Your task to perform on an android device: Search for the new Apple Watch on Best Buy Image 0: 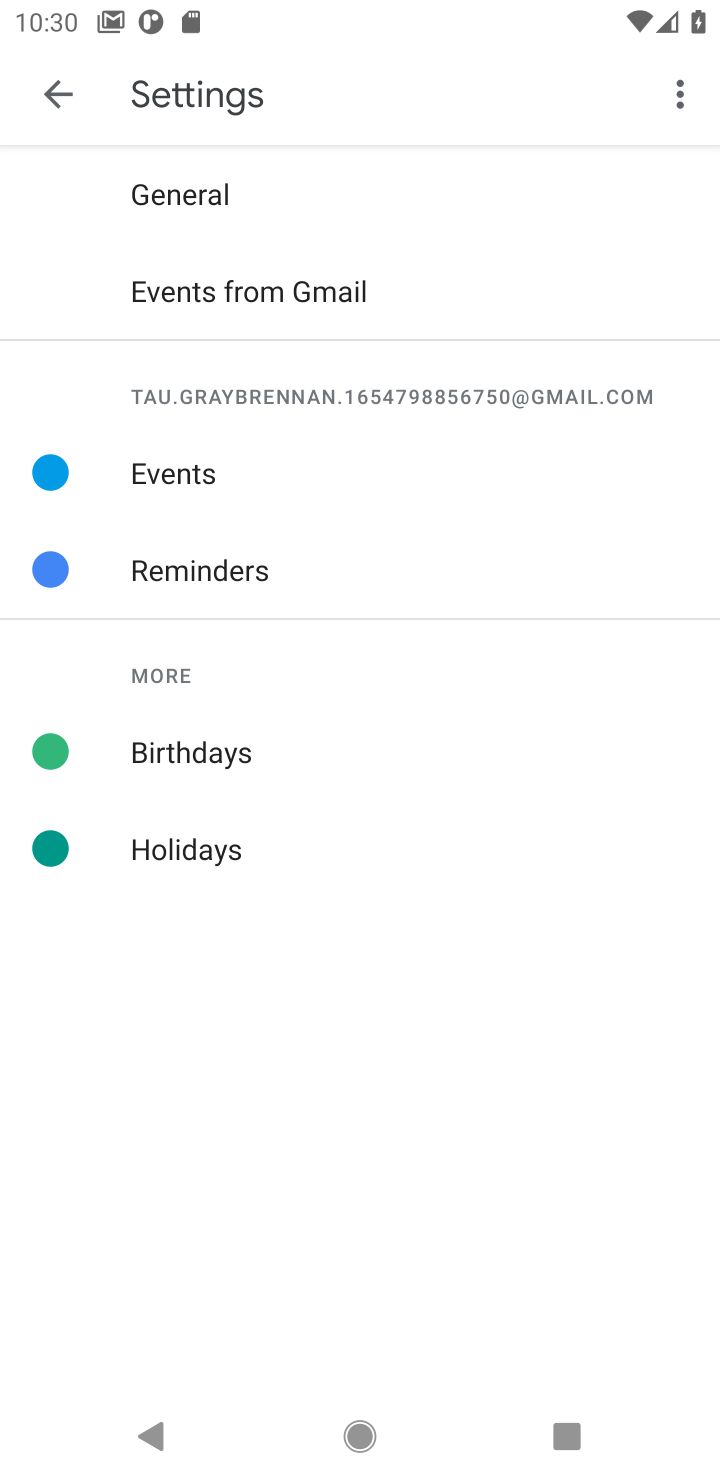
Step 0: press home button
Your task to perform on an android device: Search for the new Apple Watch on Best Buy Image 1: 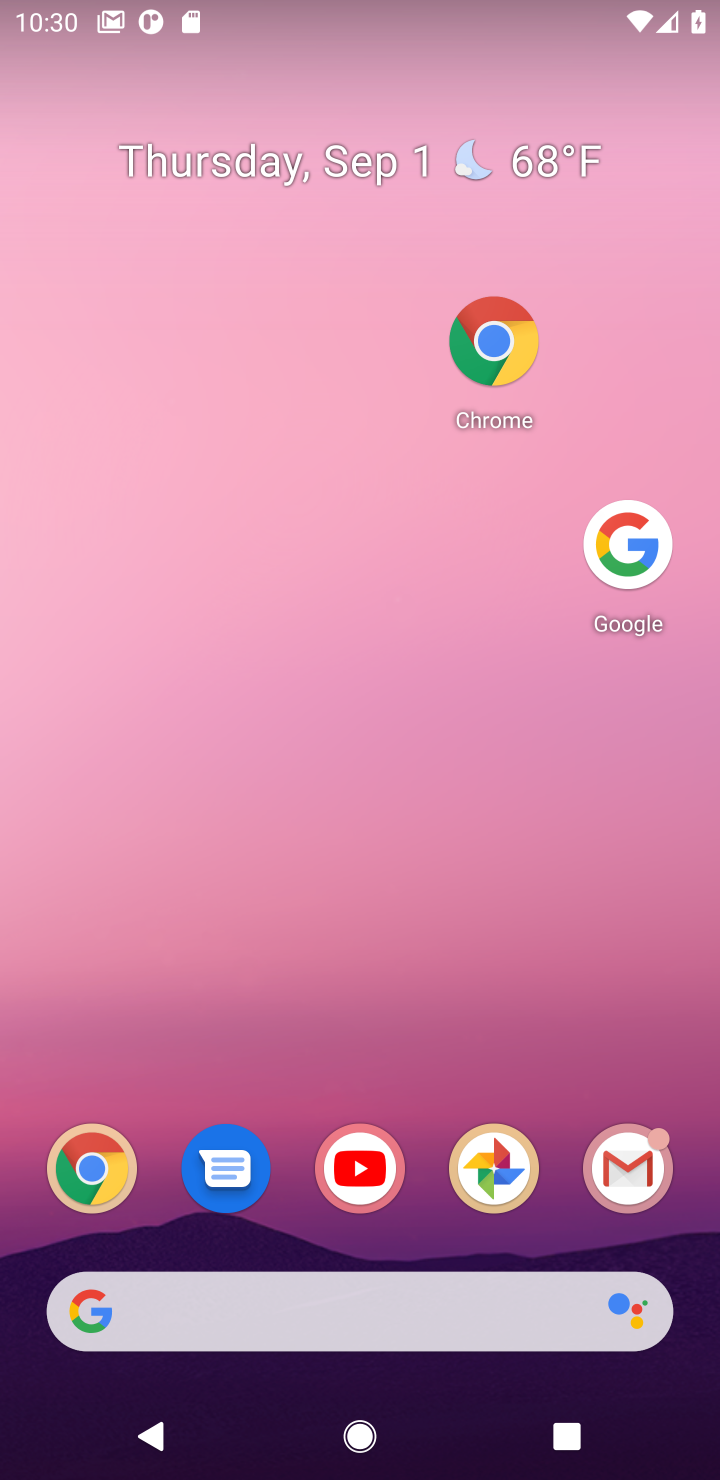
Step 1: click (626, 532)
Your task to perform on an android device: Search for the new Apple Watch on Best Buy Image 2: 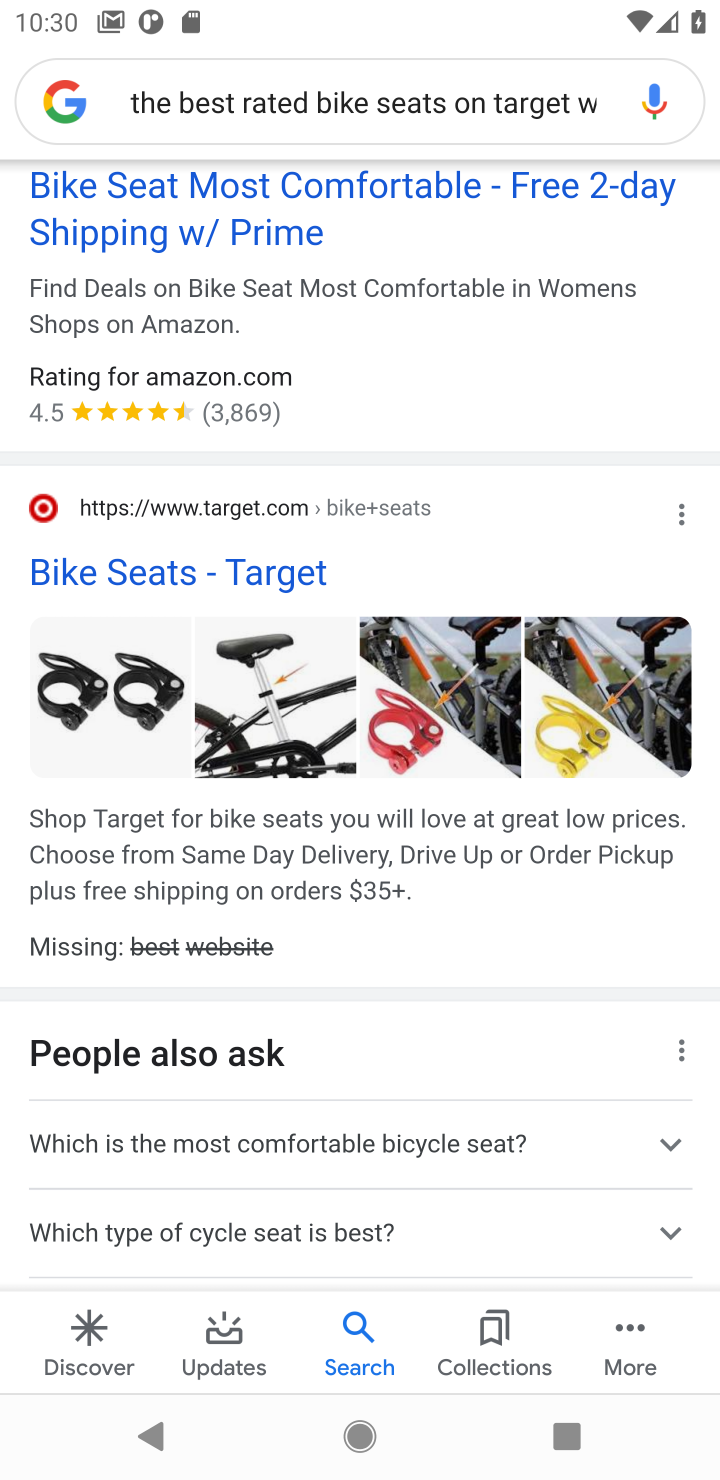
Step 2: click (302, 1204)
Your task to perform on an android device: Search for the new Apple Watch on Best Buy Image 3: 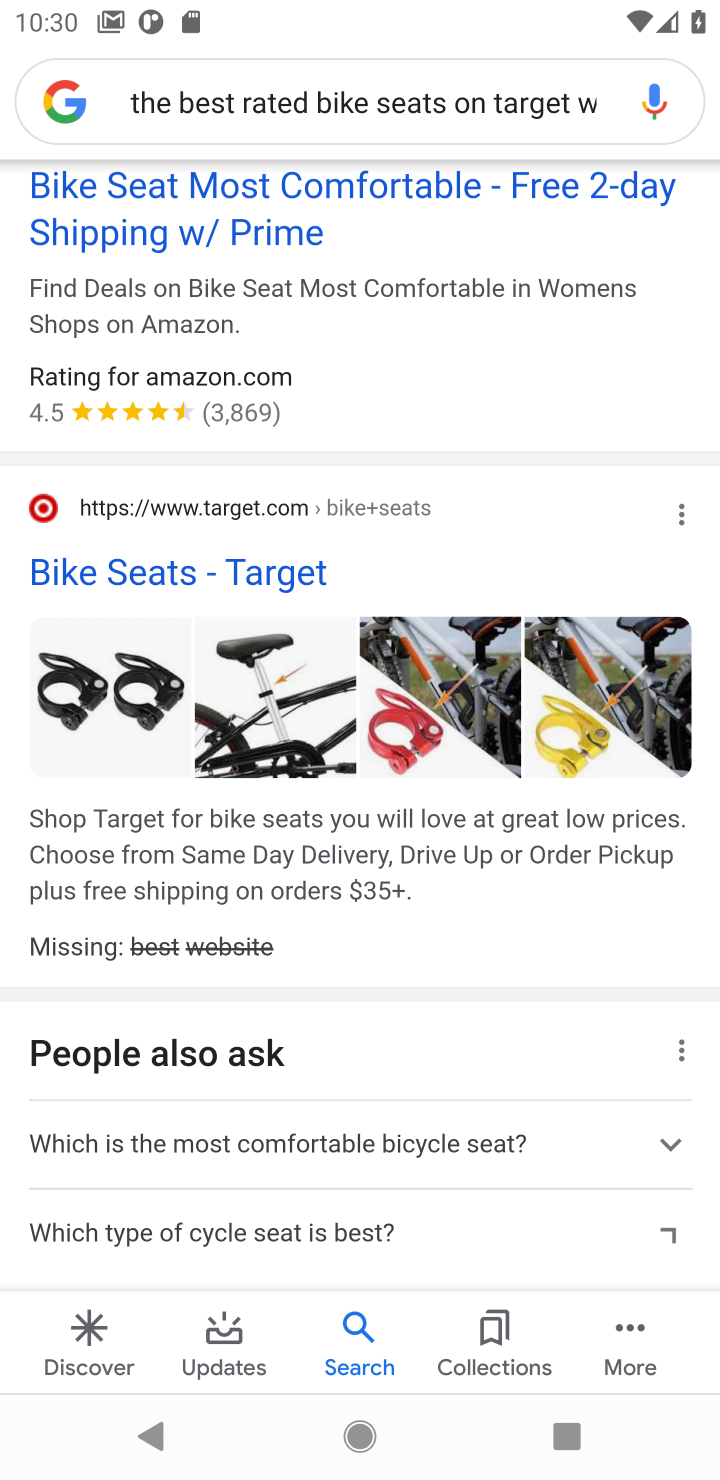
Step 3: click (453, 89)
Your task to perform on an android device: Search for the new Apple Watch on Best Buy Image 4: 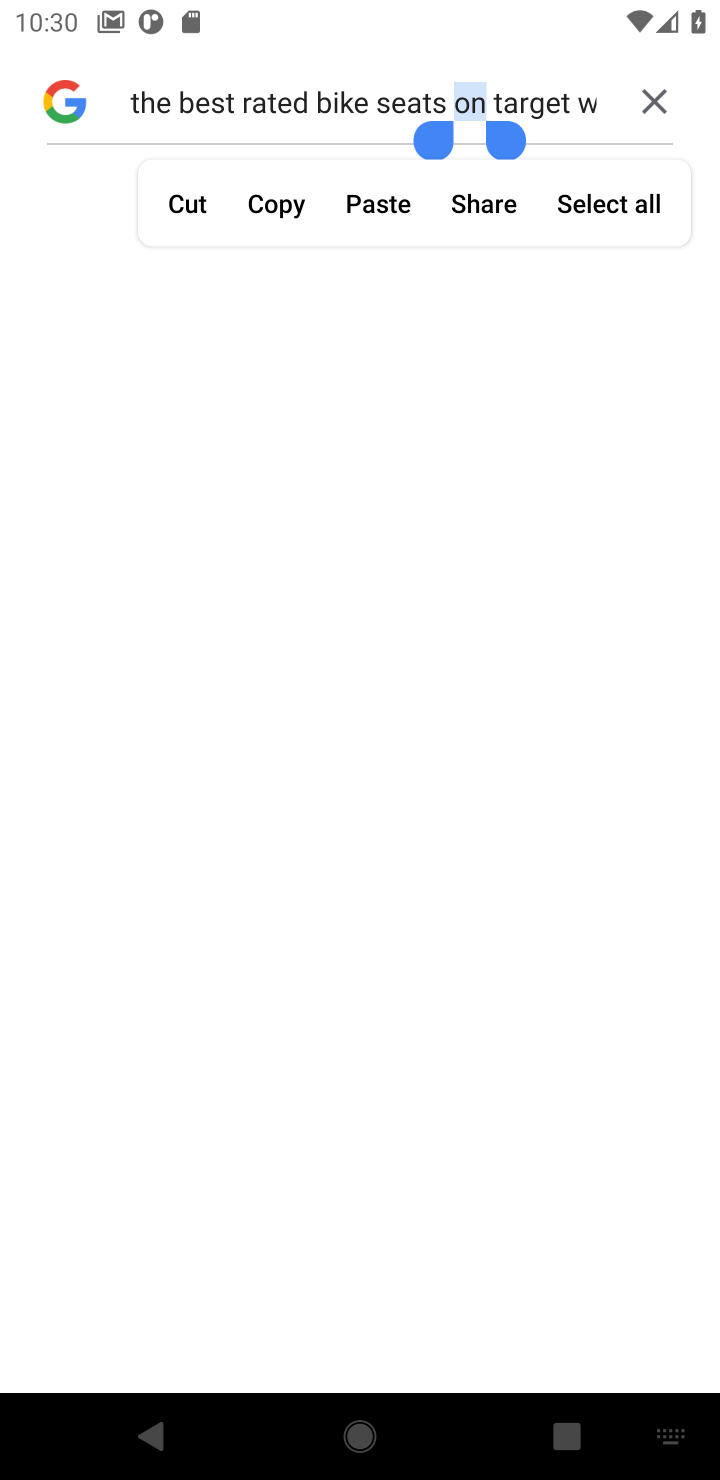
Step 4: click (655, 91)
Your task to perform on an android device: Search for the new Apple Watch on Best Buy Image 5: 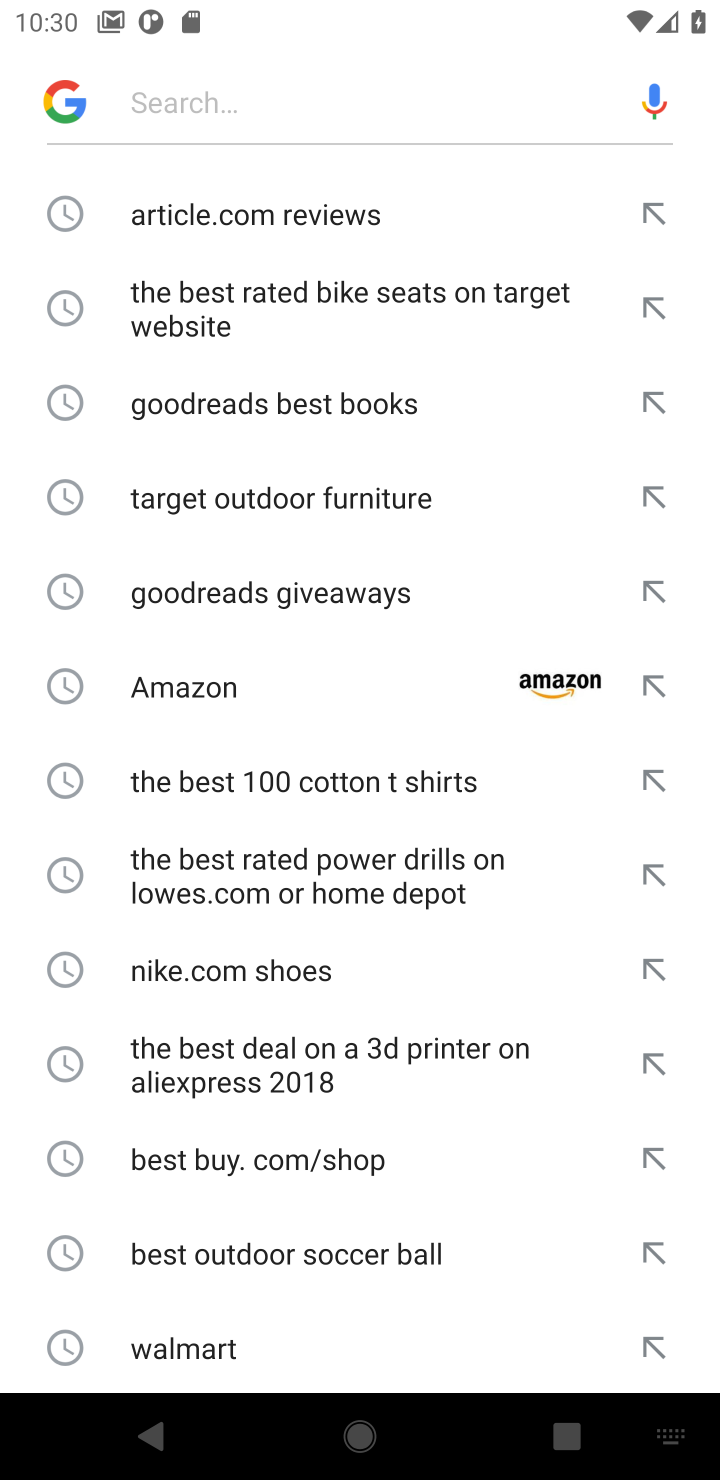
Step 5: click (379, 108)
Your task to perform on an android device: Search for the new Apple Watch on Best Buy Image 6: 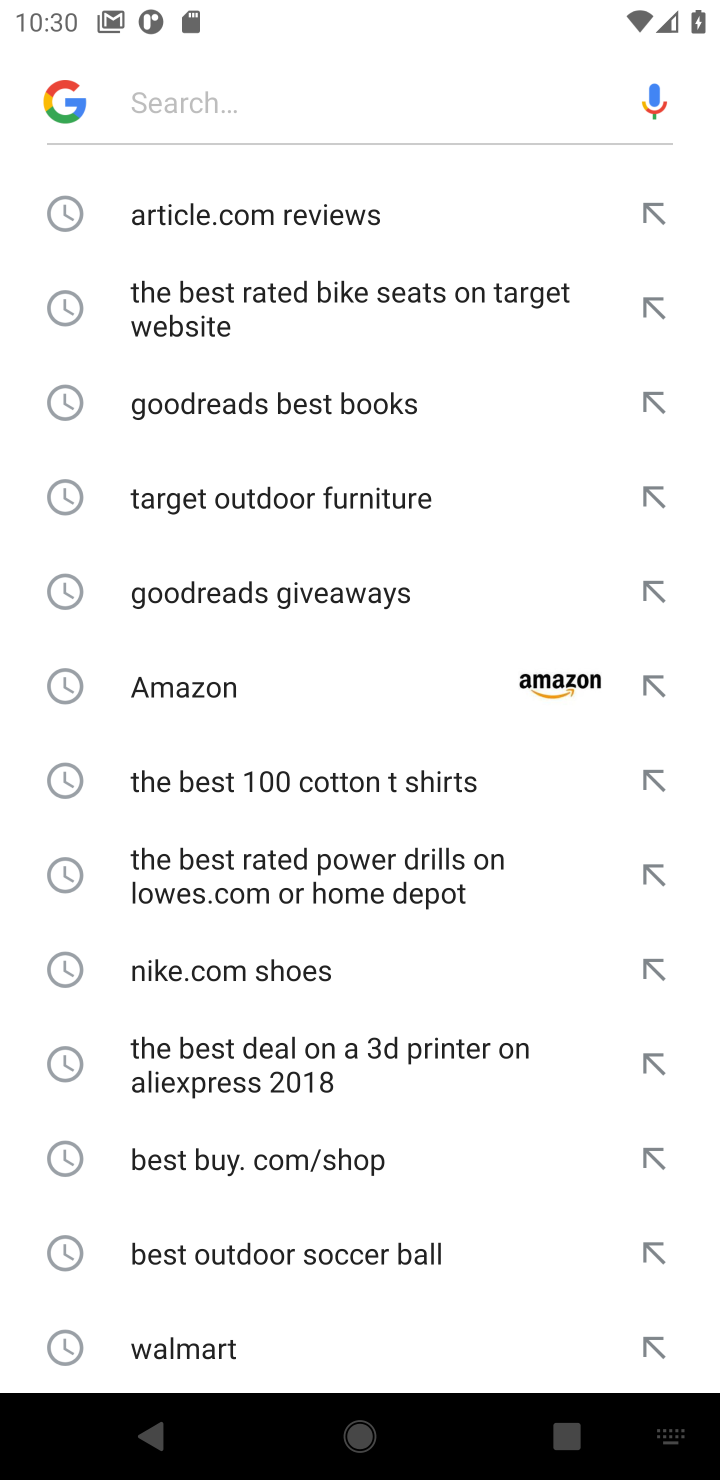
Step 6: click (277, 69)
Your task to perform on an android device: Search for the new Apple Watch on Best Buy Image 7: 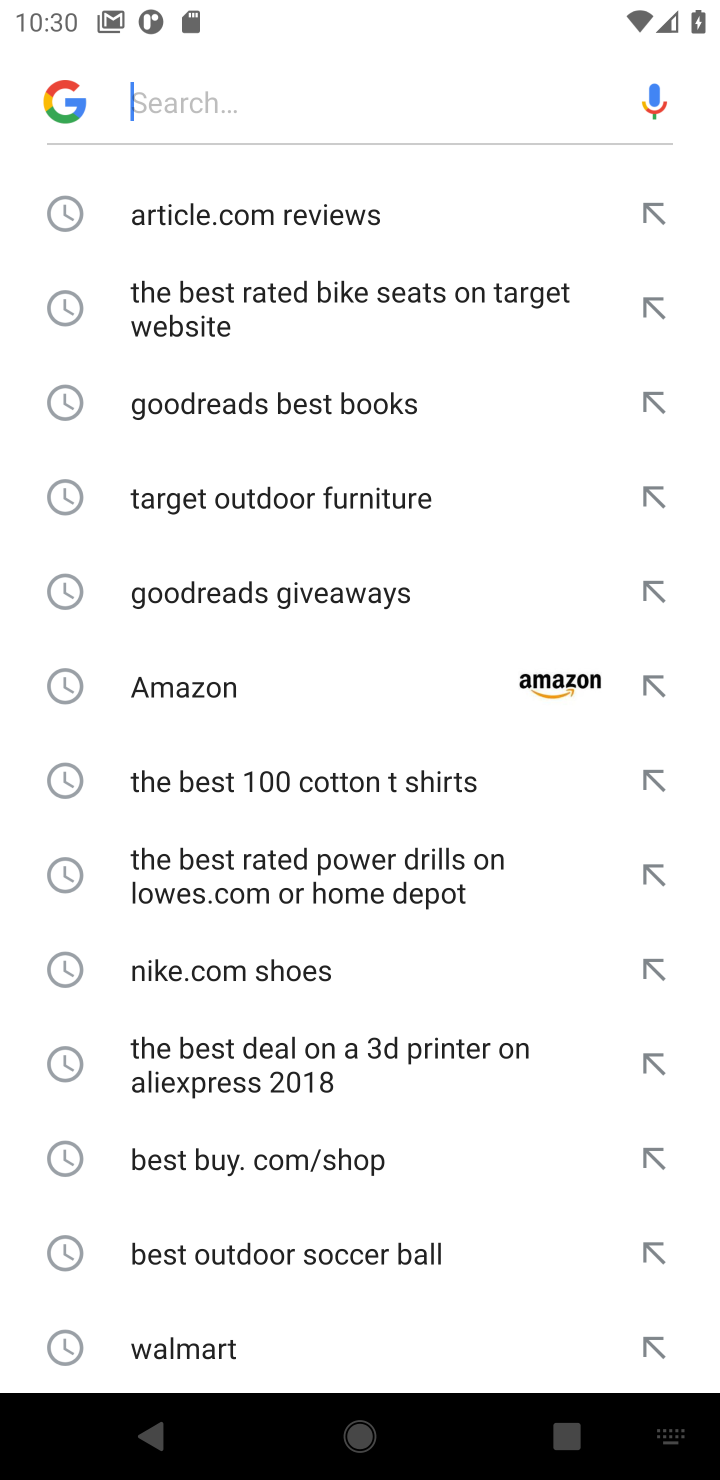
Step 7: type " the new Apple Watch on Best Buy "
Your task to perform on an android device: Search for the new Apple Watch on Best Buy Image 8: 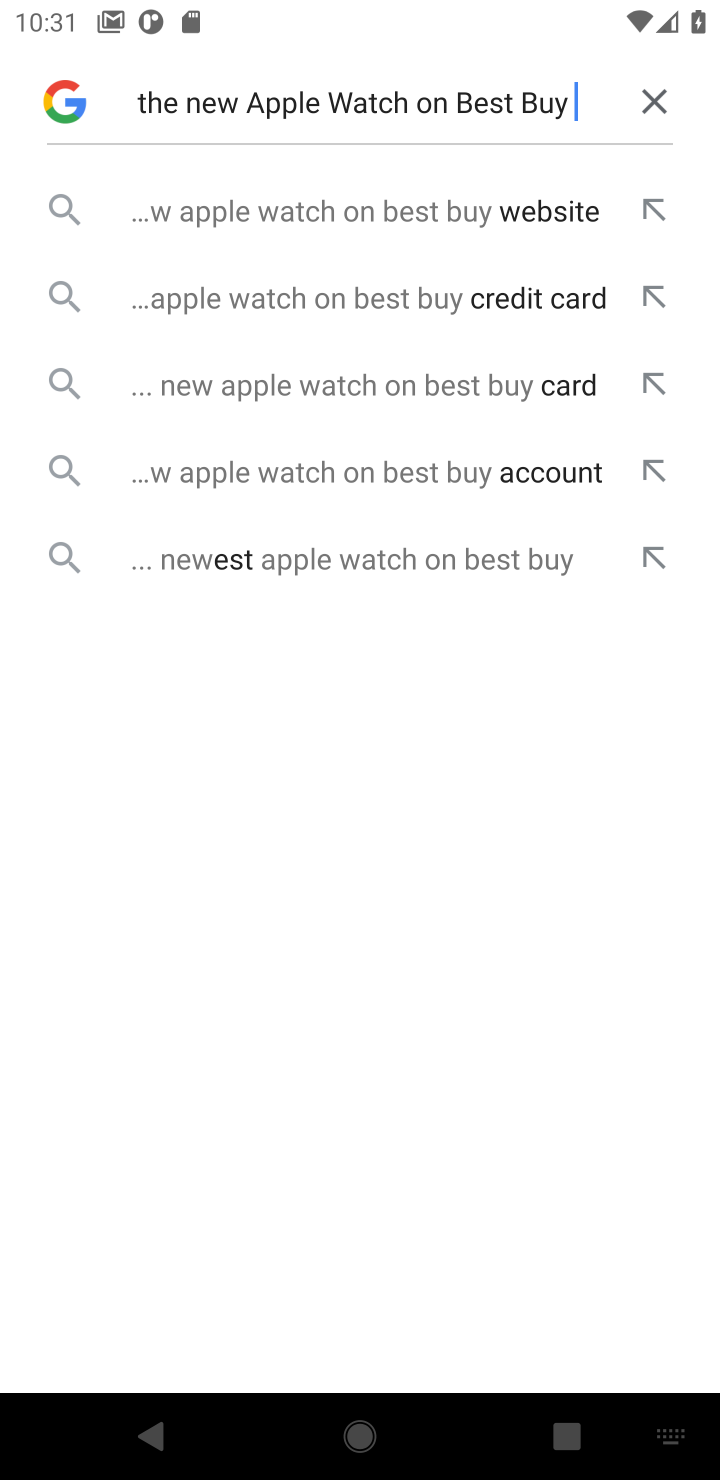
Step 8: click (398, 199)
Your task to perform on an android device: Search for the new Apple Watch on Best Buy Image 9: 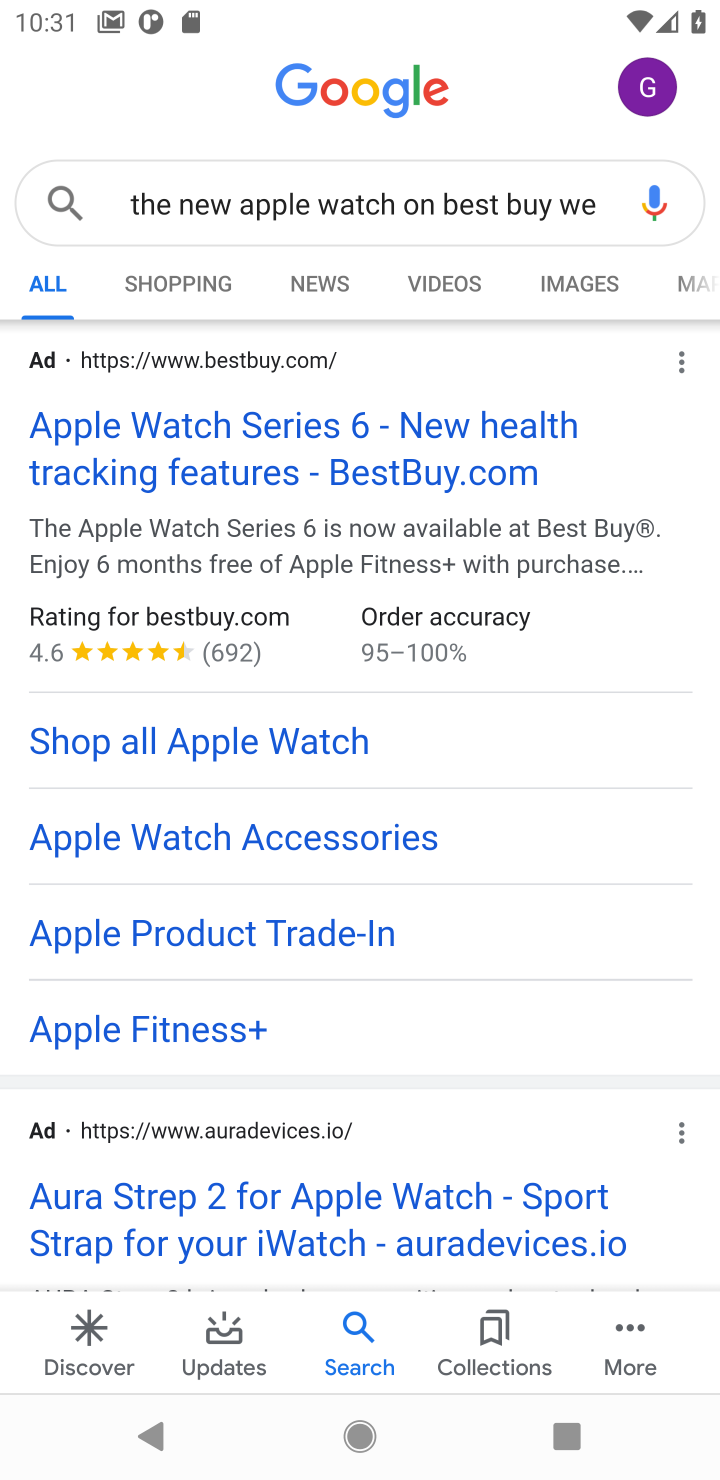
Step 9: click (299, 468)
Your task to perform on an android device: Search for the new Apple Watch on Best Buy Image 10: 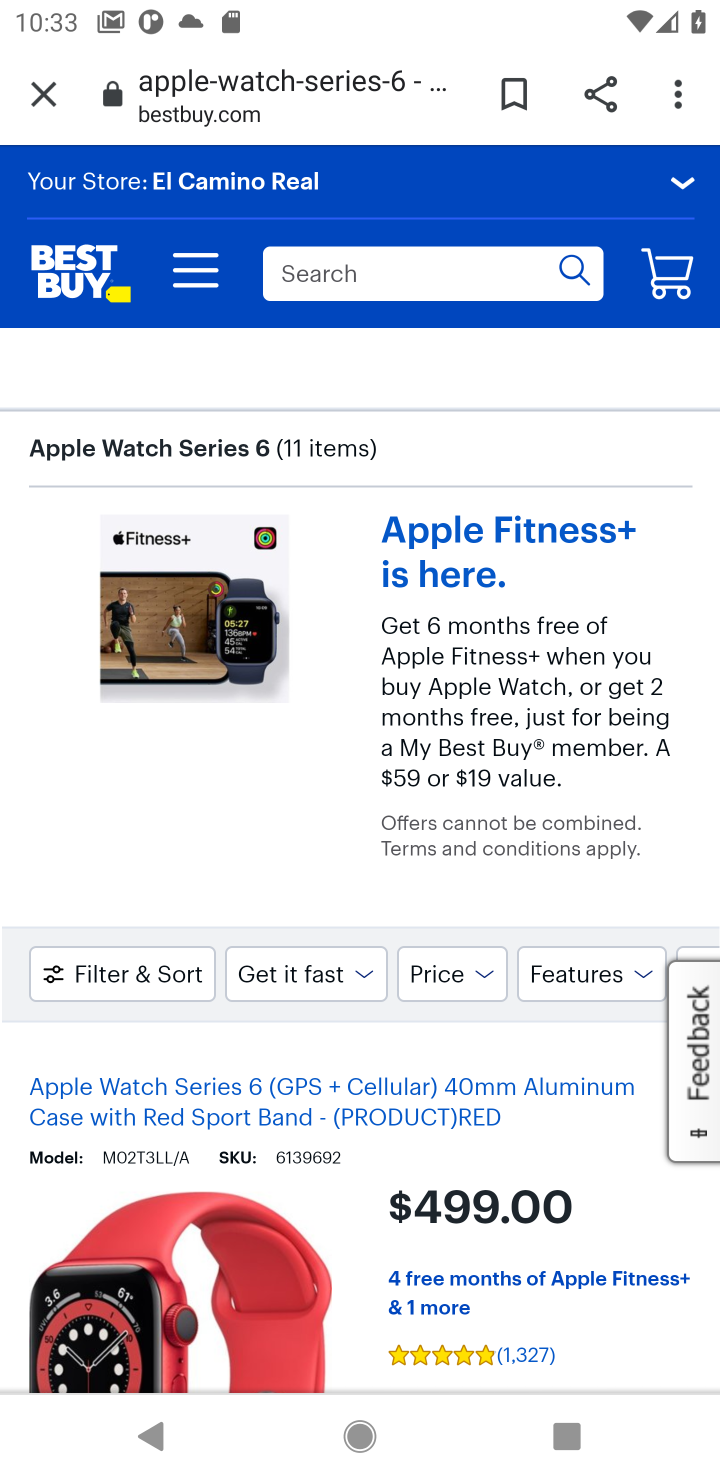
Step 10: click (420, 274)
Your task to perform on an android device: Search for the new Apple Watch on Best Buy Image 11: 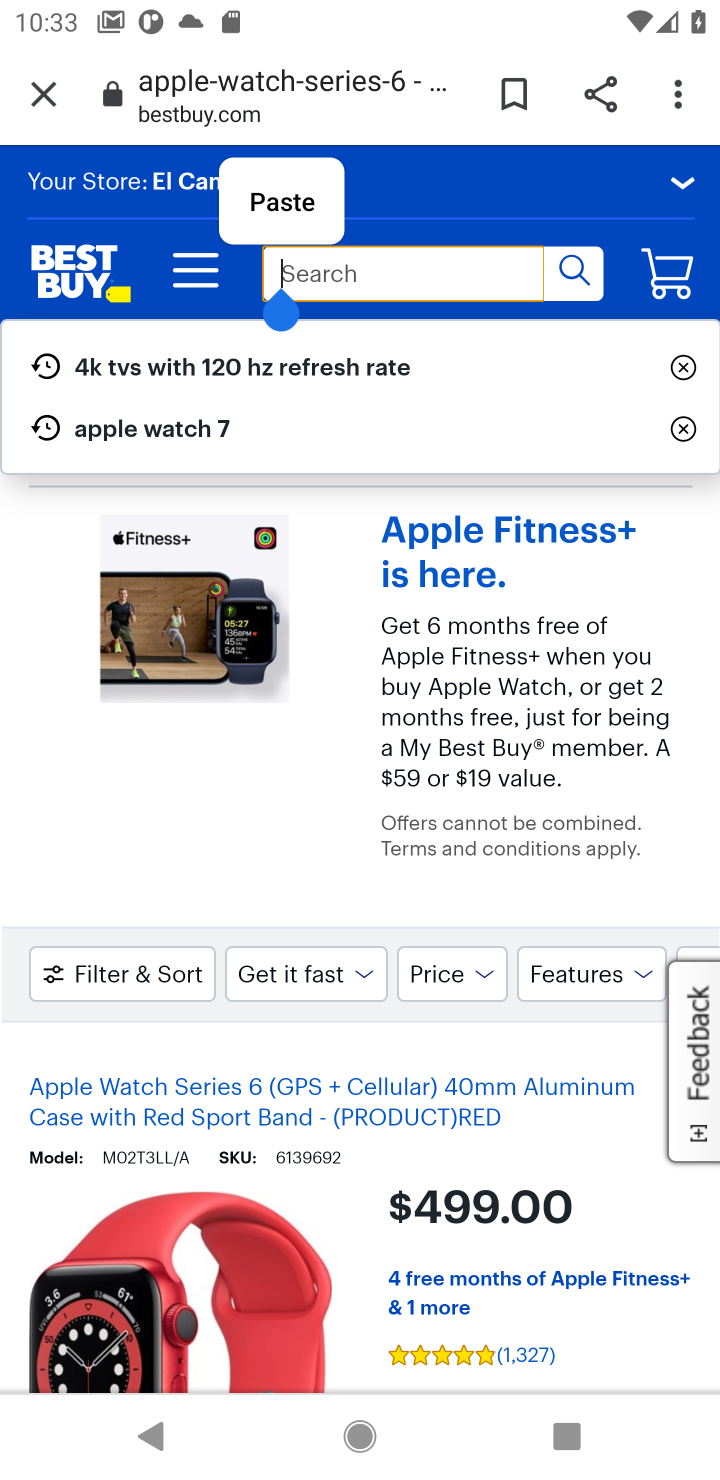
Step 11: type "apple watch "
Your task to perform on an android device: Search for the new Apple Watch on Best Buy Image 12: 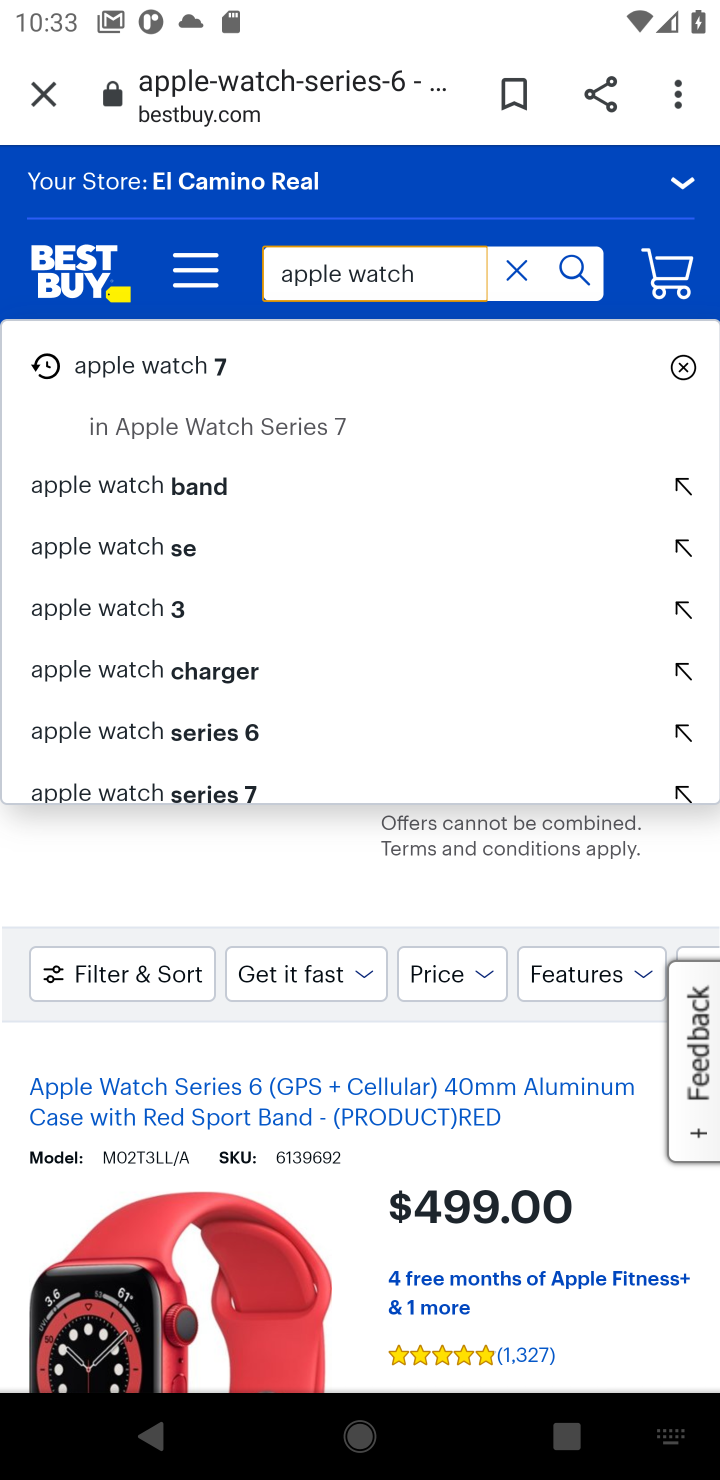
Step 12: click (164, 354)
Your task to perform on an android device: Search for the new Apple Watch on Best Buy Image 13: 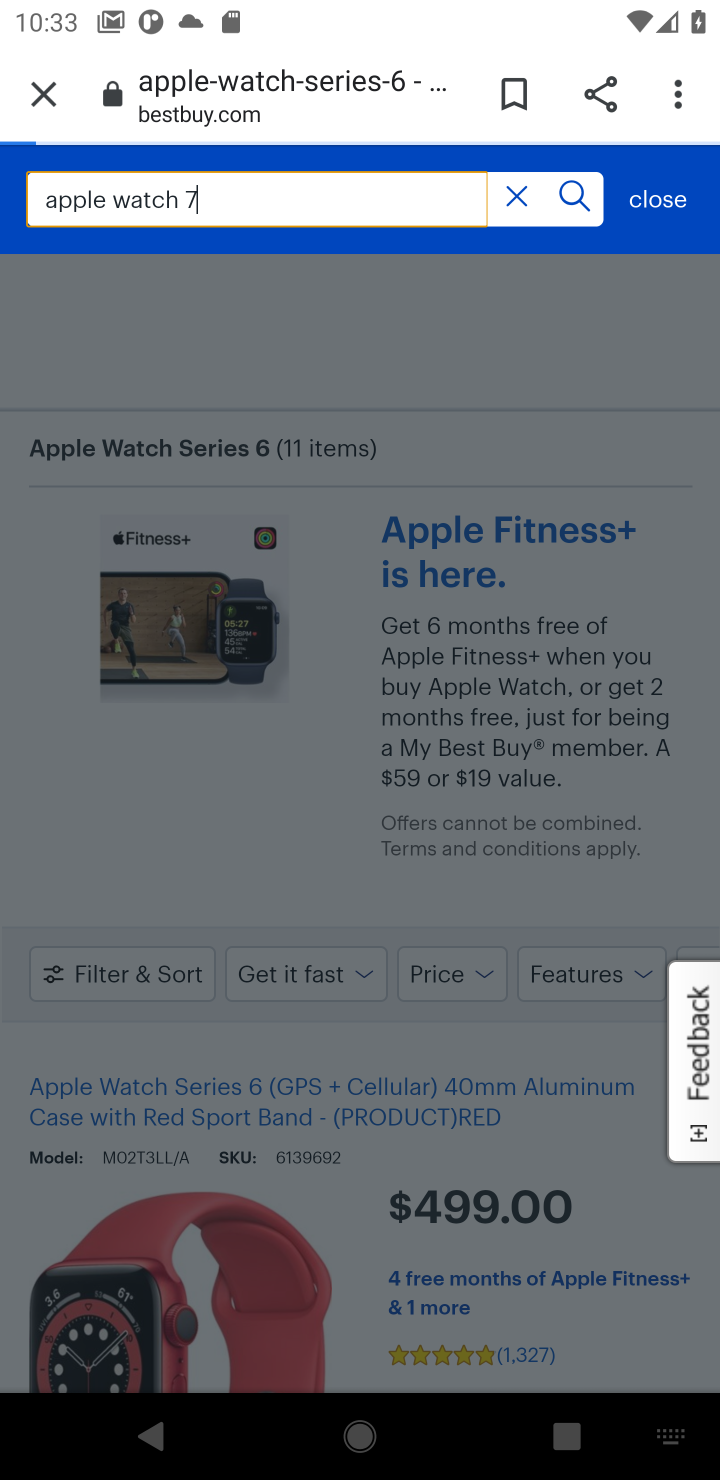
Step 13: task complete